Your task to perform on an android device: change text size in settings app Image 0: 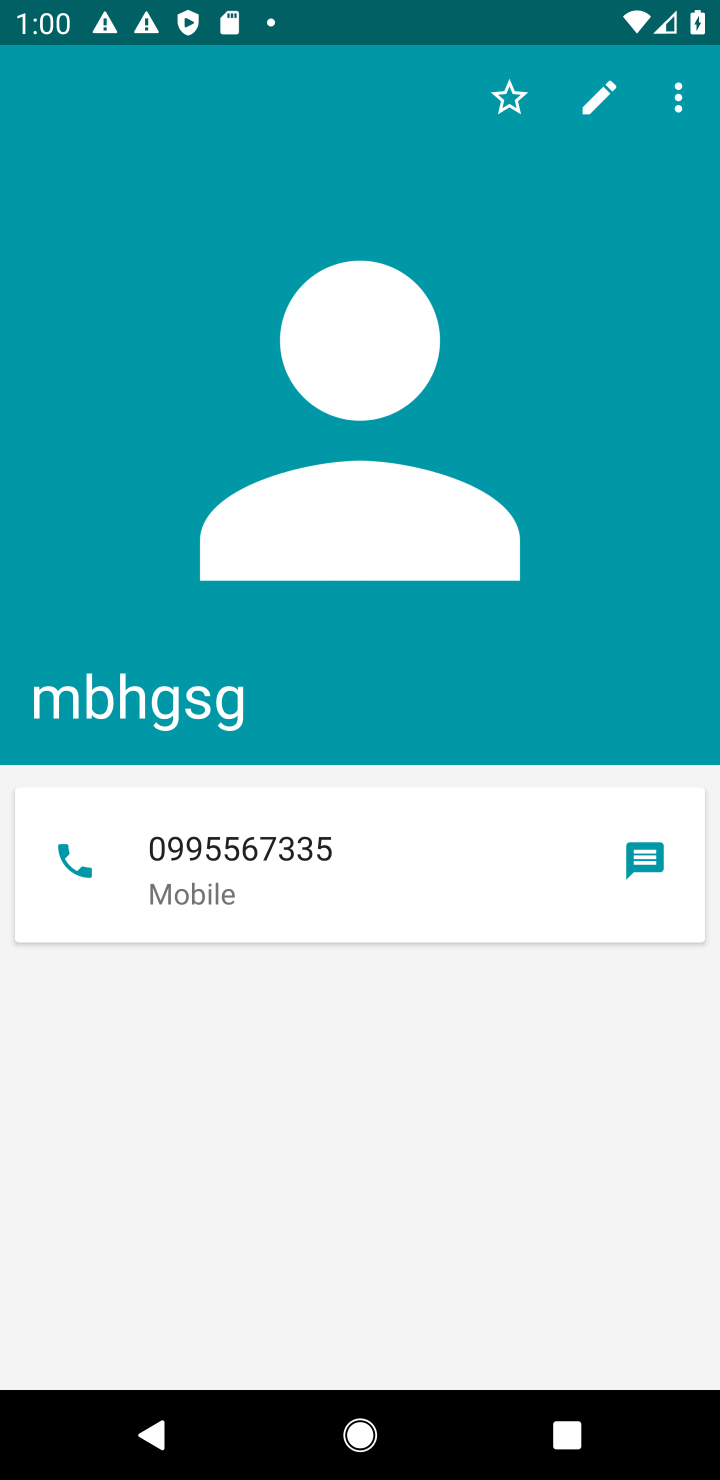
Step 0: press home button
Your task to perform on an android device: change text size in settings app Image 1: 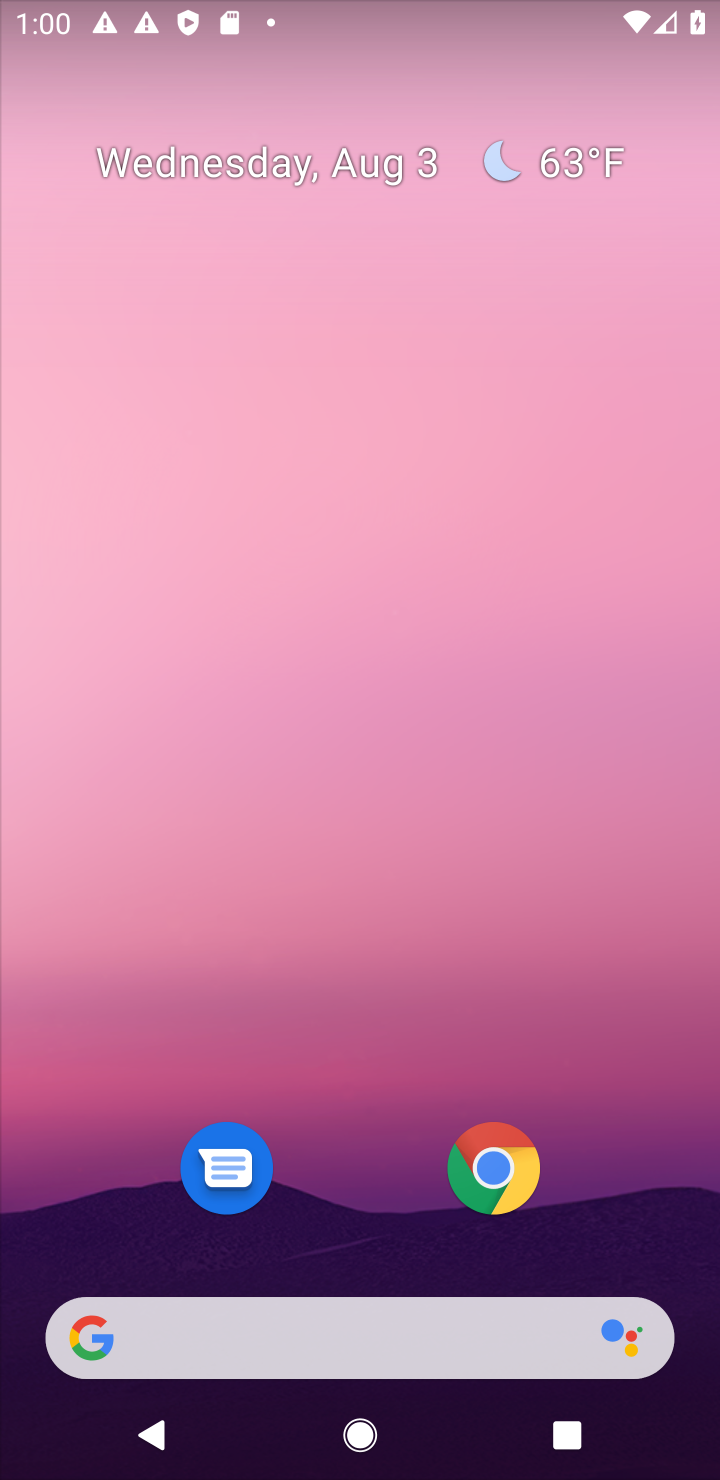
Step 1: drag from (661, 1123) to (573, 220)
Your task to perform on an android device: change text size in settings app Image 2: 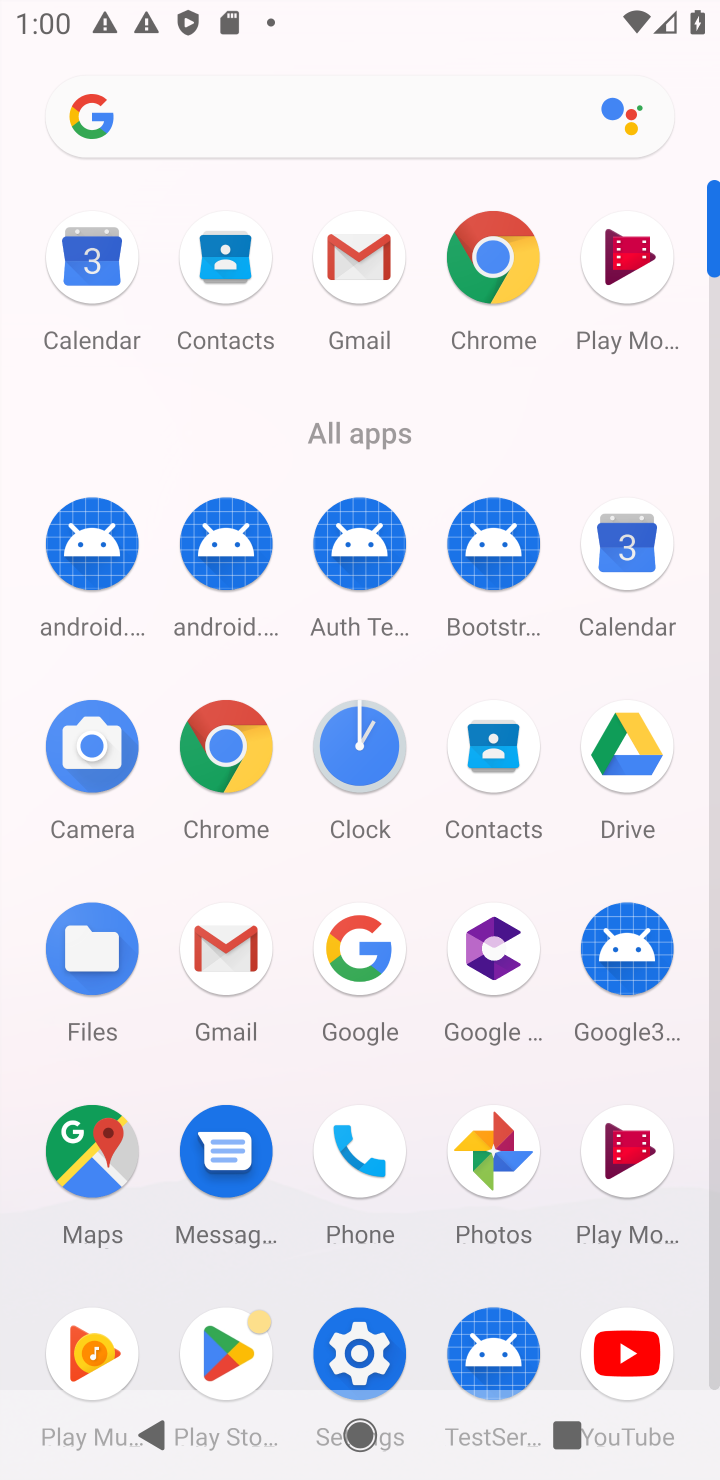
Step 2: click (361, 1352)
Your task to perform on an android device: change text size in settings app Image 3: 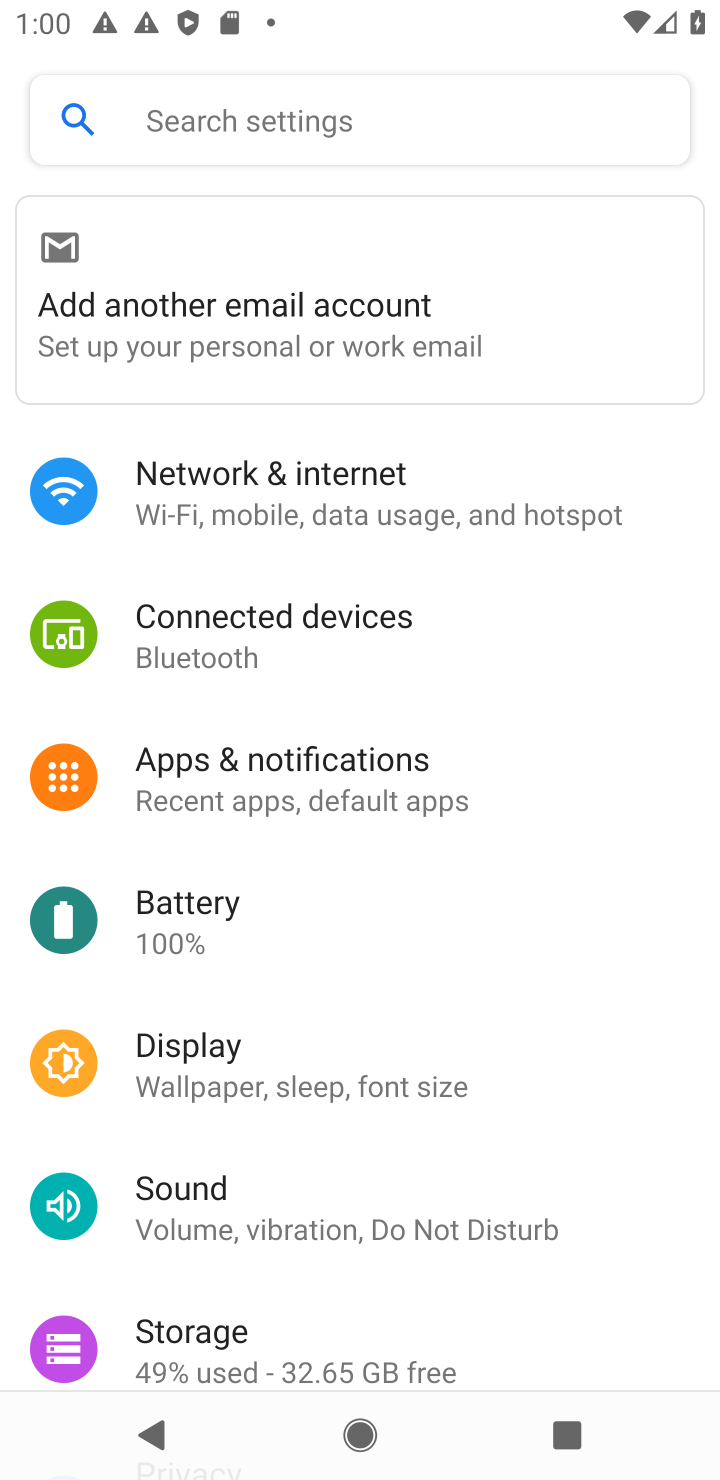
Step 3: click (244, 1080)
Your task to perform on an android device: change text size in settings app Image 4: 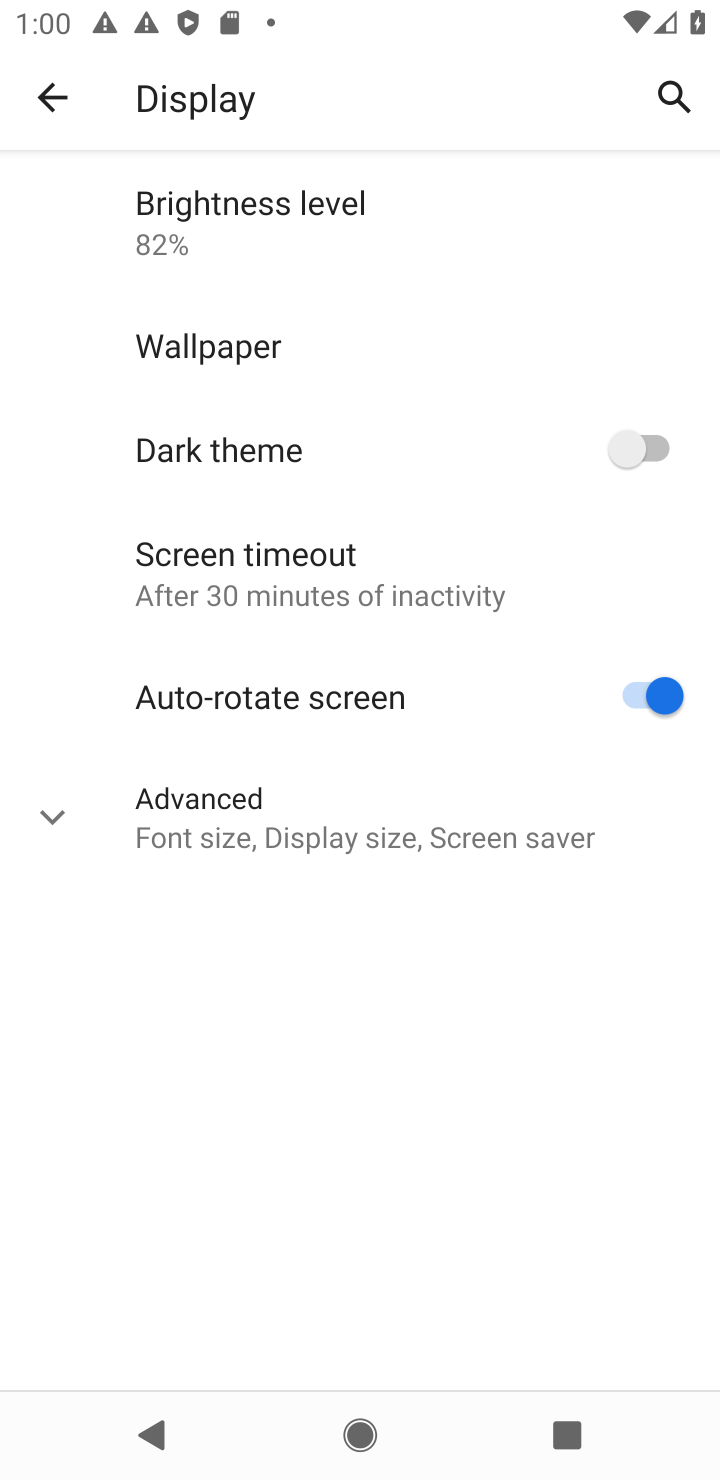
Step 4: click (41, 818)
Your task to perform on an android device: change text size in settings app Image 5: 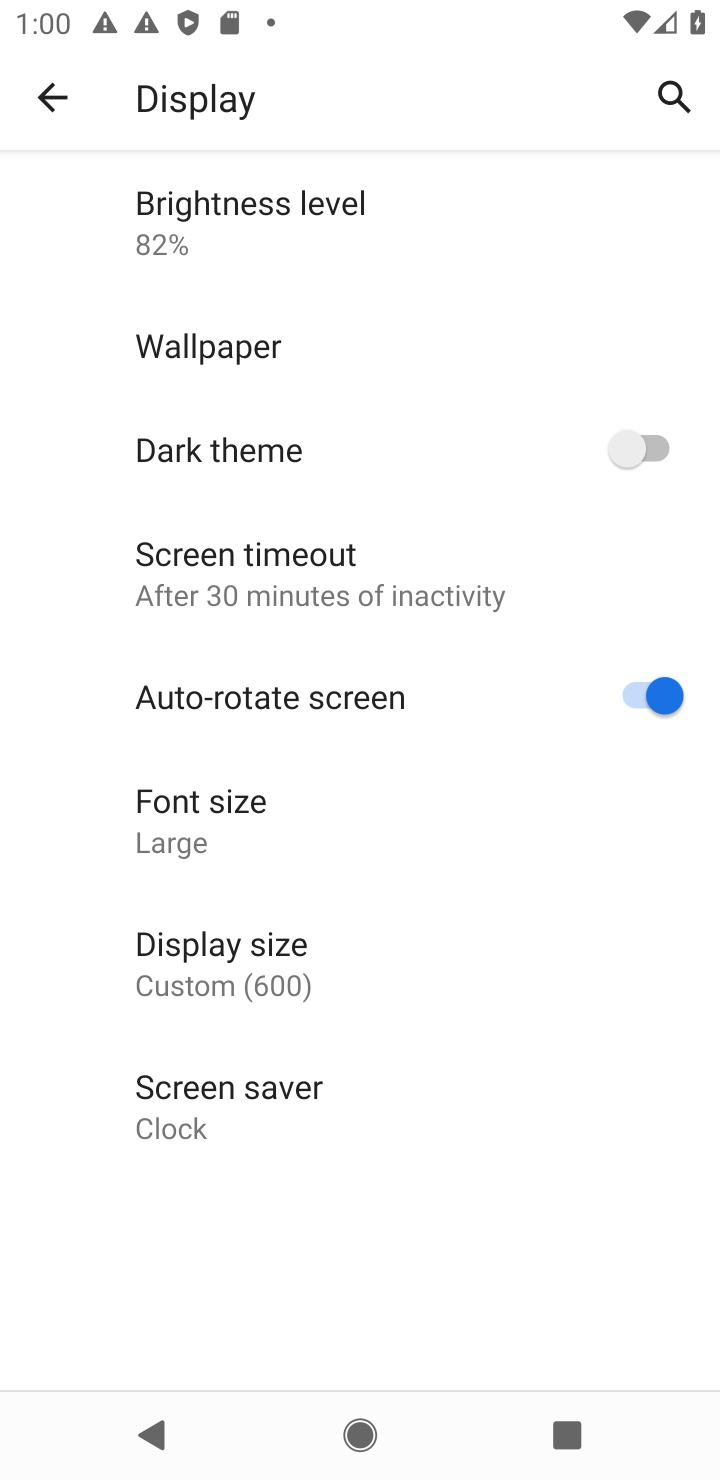
Step 5: click (220, 818)
Your task to perform on an android device: change text size in settings app Image 6: 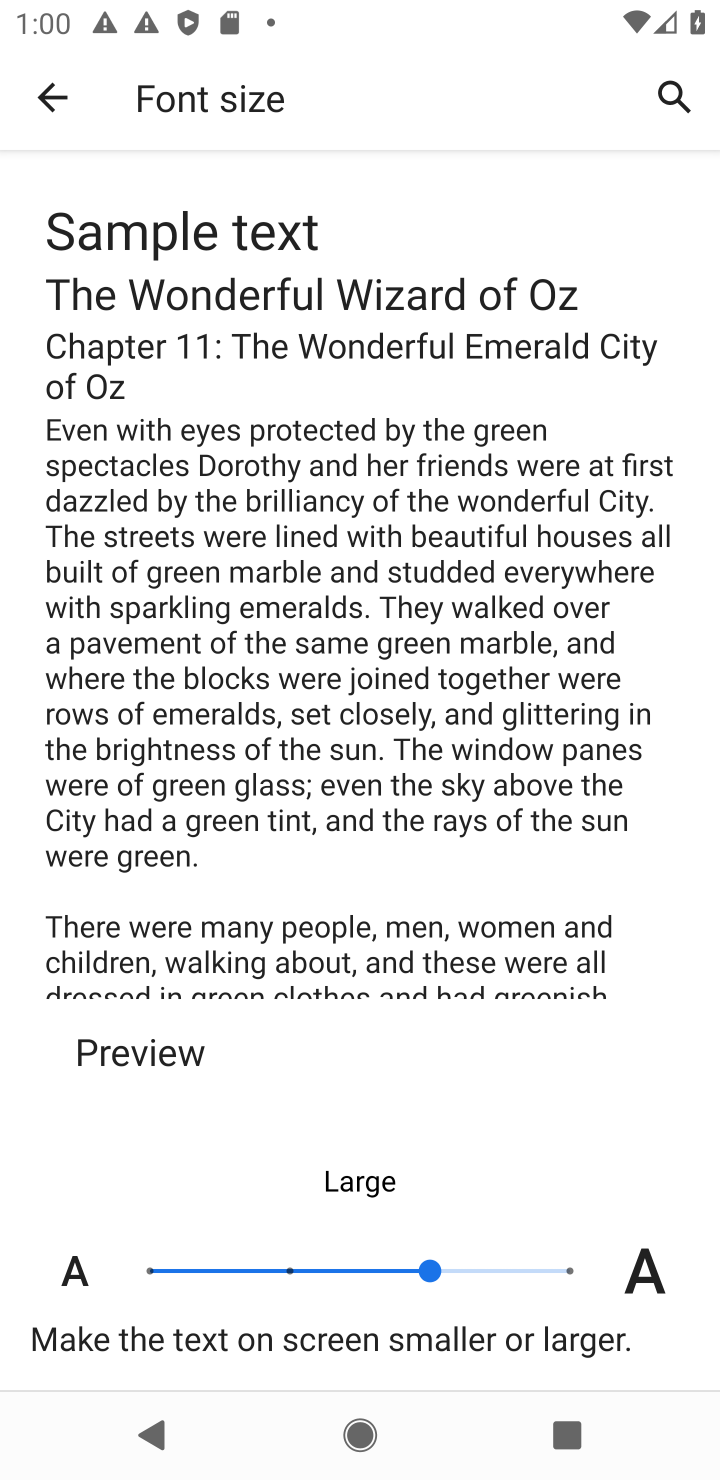
Step 6: click (565, 1265)
Your task to perform on an android device: change text size in settings app Image 7: 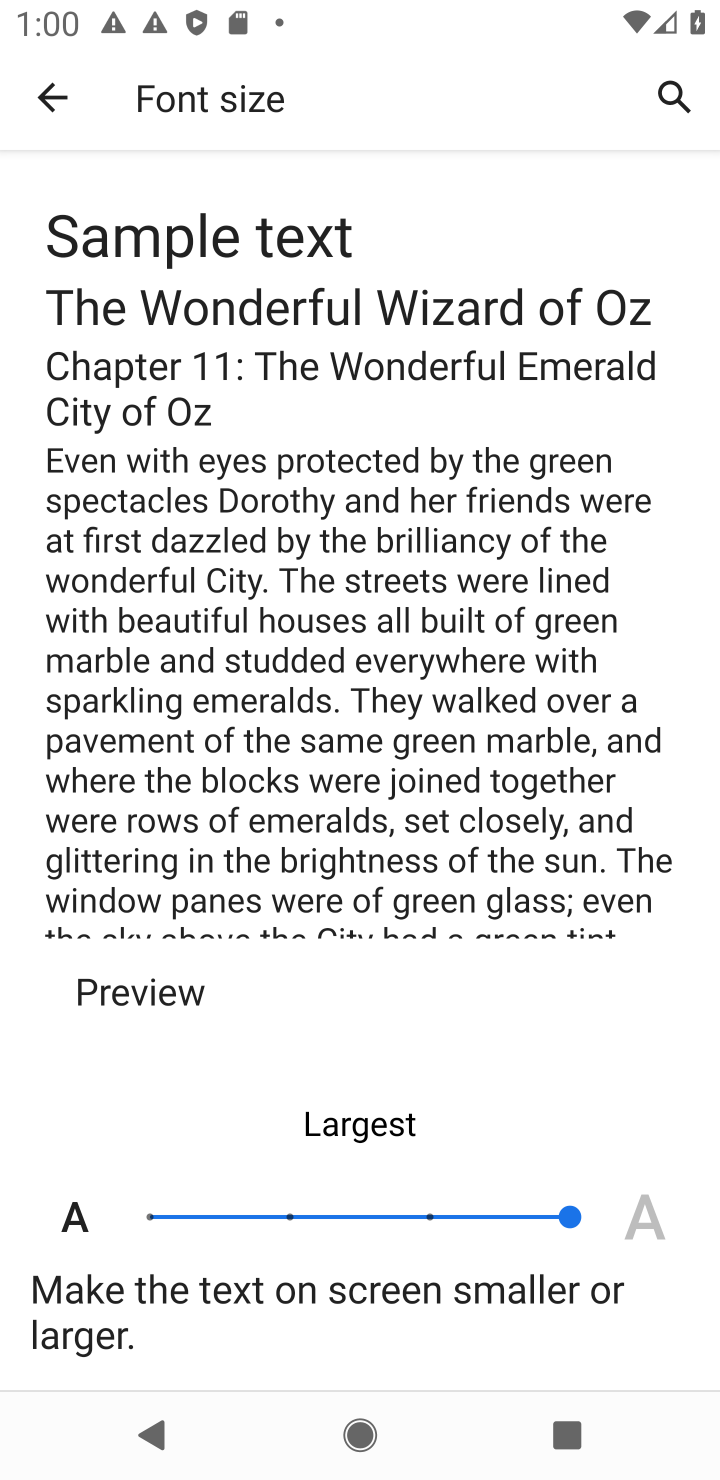
Step 7: task complete